Your task to perform on an android device: check google app version Image 0: 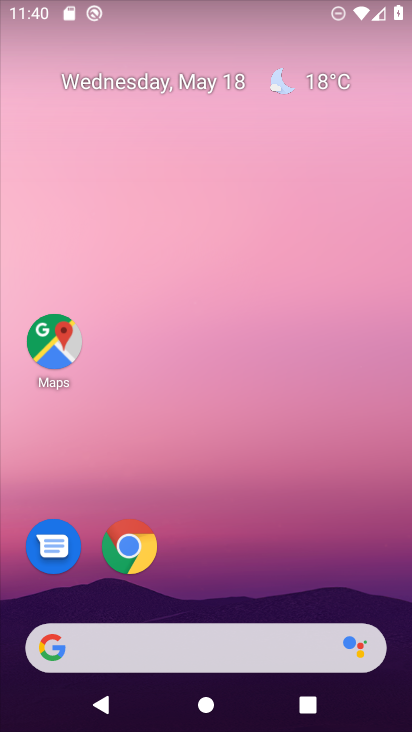
Step 0: drag from (232, 722) to (229, 249)
Your task to perform on an android device: check google app version Image 1: 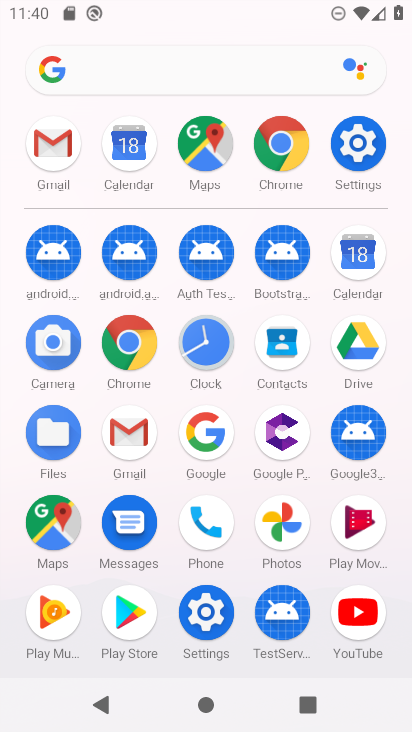
Step 1: click (207, 424)
Your task to perform on an android device: check google app version Image 2: 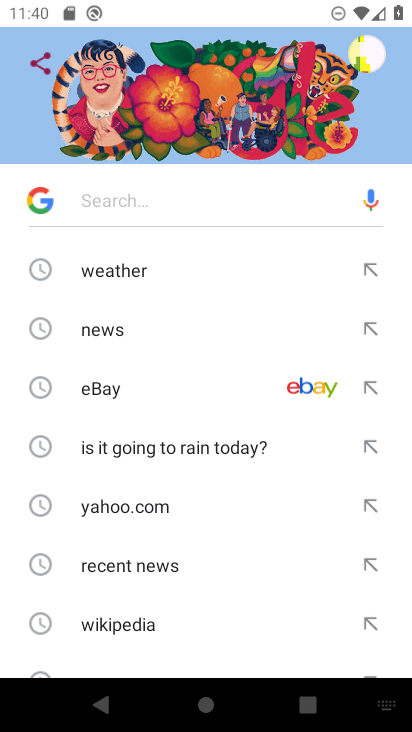
Step 2: drag from (179, 585) to (159, 233)
Your task to perform on an android device: check google app version Image 3: 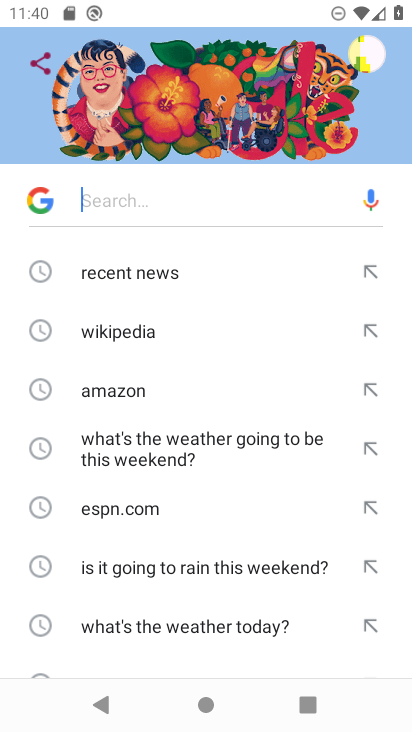
Step 3: click (17, 193)
Your task to perform on an android device: check google app version Image 4: 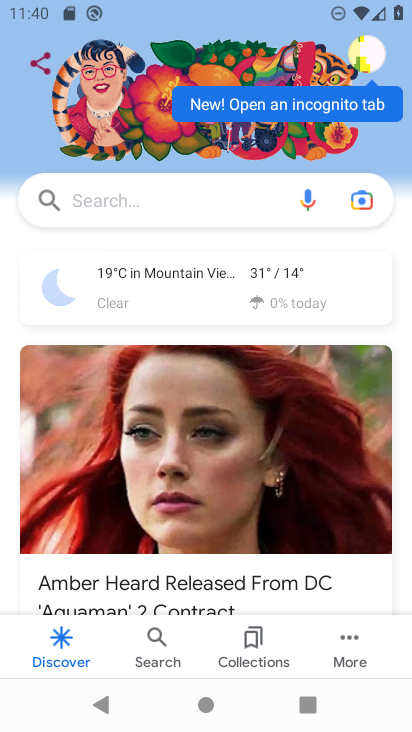
Step 4: click (351, 633)
Your task to perform on an android device: check google app version Image 5: 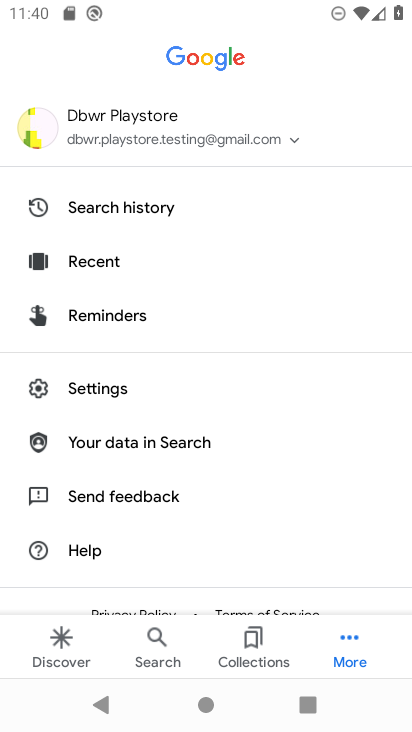
Step 5: drag from (208, 560) to (243, 223)
Your task to perform on an android device: check google app version Image 6: 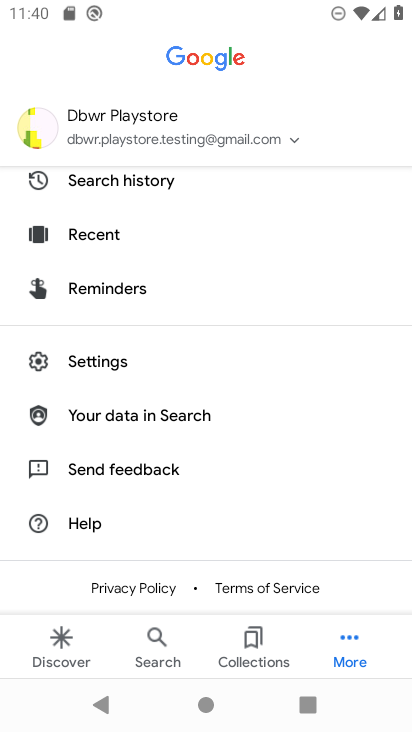
Step 6: click (107, 359)
Your task to perform on an android device: check google app version Image 7: 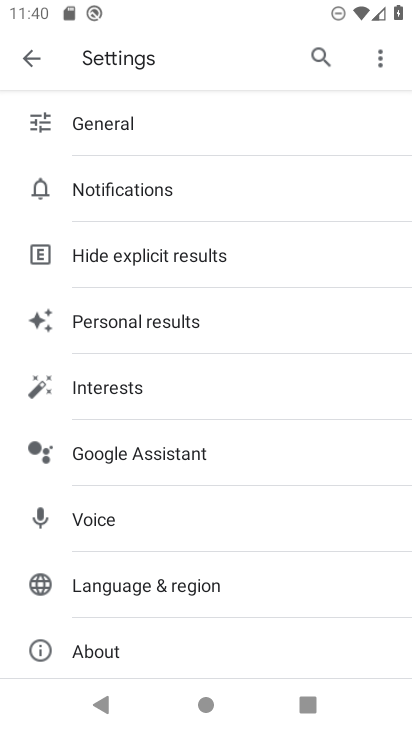
Step 7: drag from (153, 628) to (170, 324)
Your task to perform on an android device: check google app version Image 8: 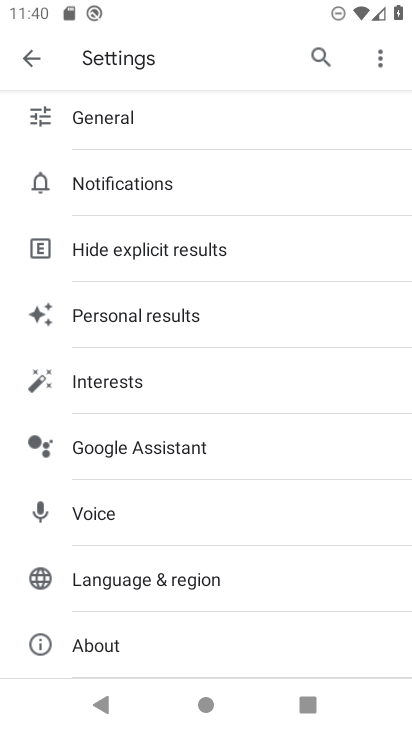
Step 8: click (99, 643)
Your task to perform on an android device: check google app version Image 9: 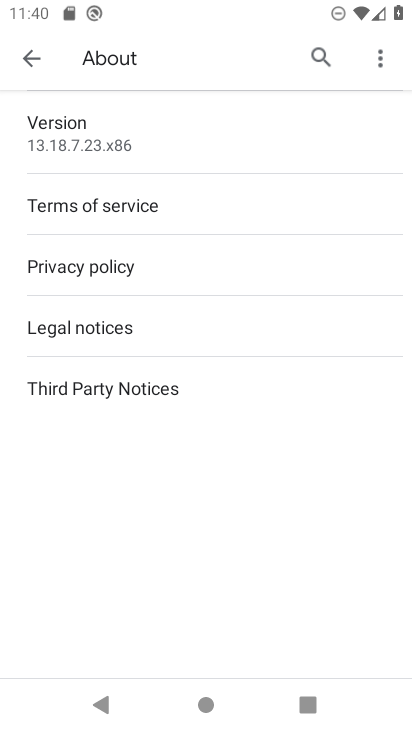
Step 9: task complete